Your task to perform on an android device: Open the phone app and click the voicemail tab. Image 0: 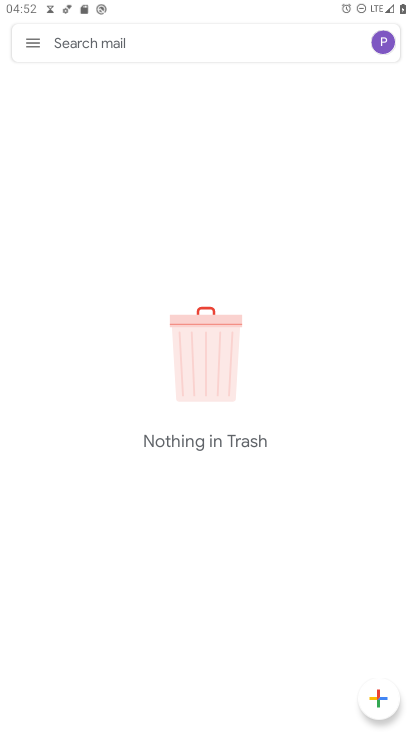
Step 0: press home button
Your task to perform on an android device: Open the phone app and click the voicemail tab. Image 1: 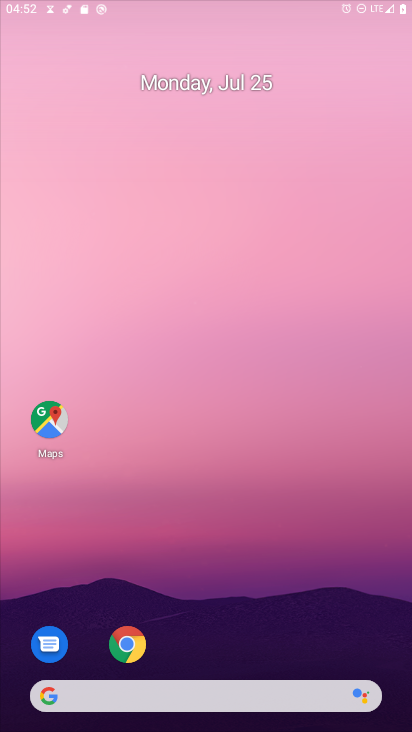
Step 1: drag from (287, 651) to (338, 113)
Your task to perform on an android device: Open the phone app and click the voicemail tab. Image 2: 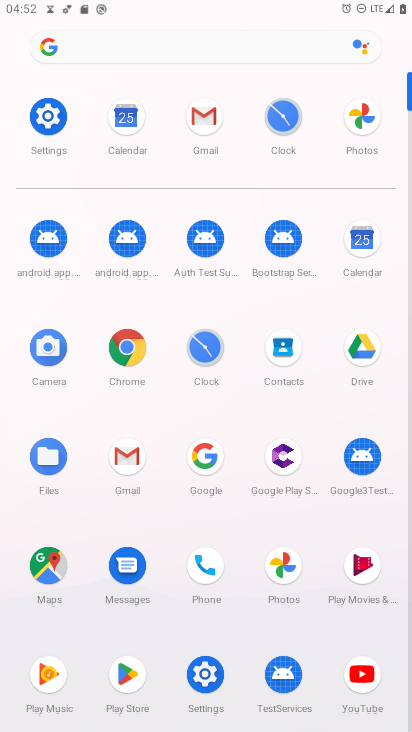
Step 2: drag from (240, 623) to (255, 294)
Your task to perform on an android device: Open the phone app and click the voicemail tab. Image 3: 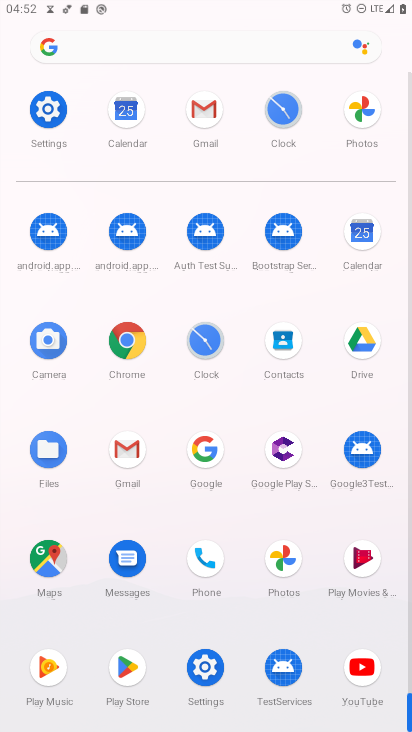
Step 3: click (205, 558)
Your task to perform on an android device: Open the phone app and click the voicemail tab. Image 4: 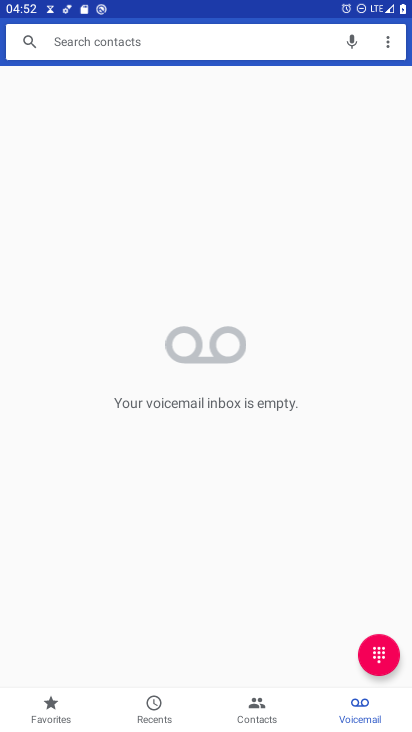
Step 4: click (352, 706)
Your task to perform on an android device: Open the phone app and click the voicemail tab. Image 5: 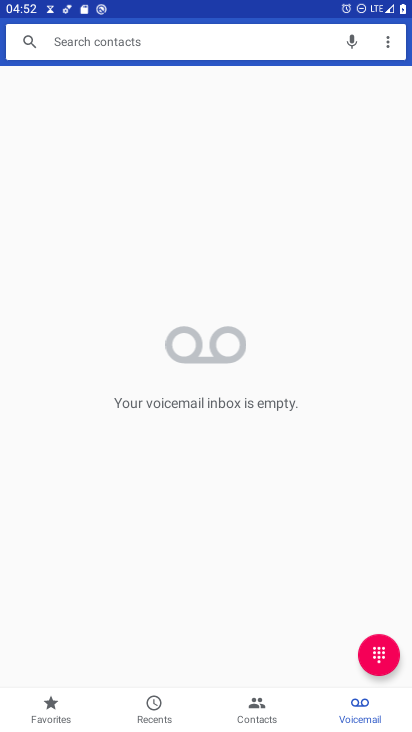
Step 5: task complete